Your task to perform on an android device: Go to internet settings Image 0: 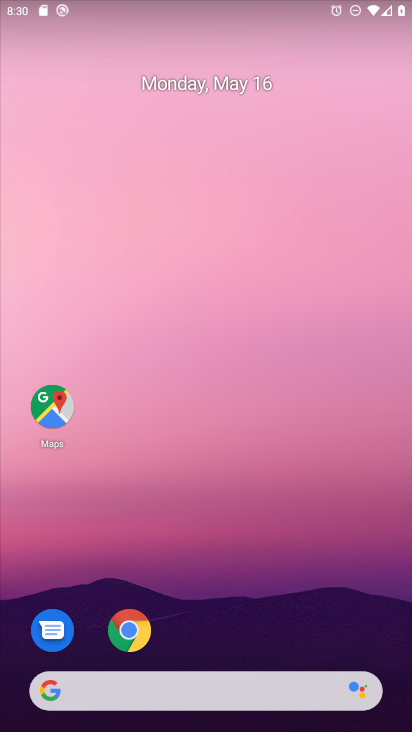
Step 0: drag from (305, 406) to (286, 45)
Your task to perform on an android device: Go to internet settings Image 1: 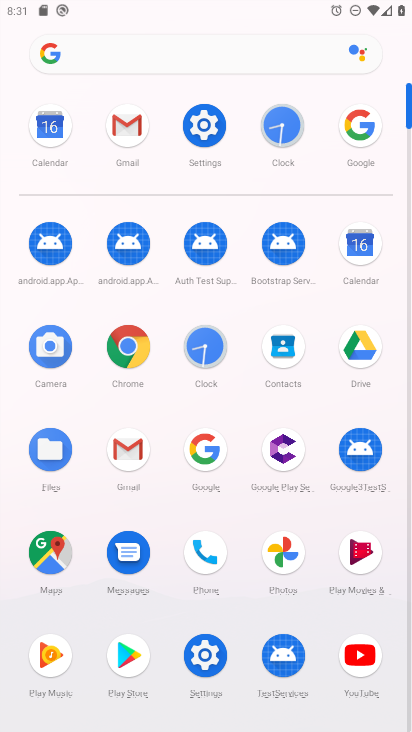
Step 1: click (201, 118)
Your task to perform on an android device: Go to internet settings Image 2: 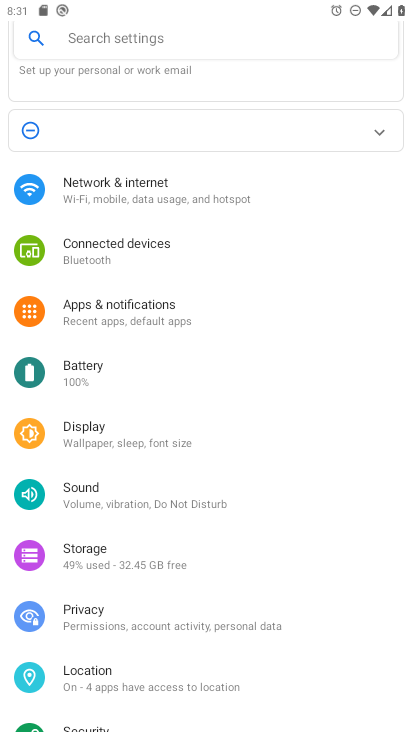
Step 2: click (95, 192)
Your task to perform on an android device: Go to internet settings Image 3: 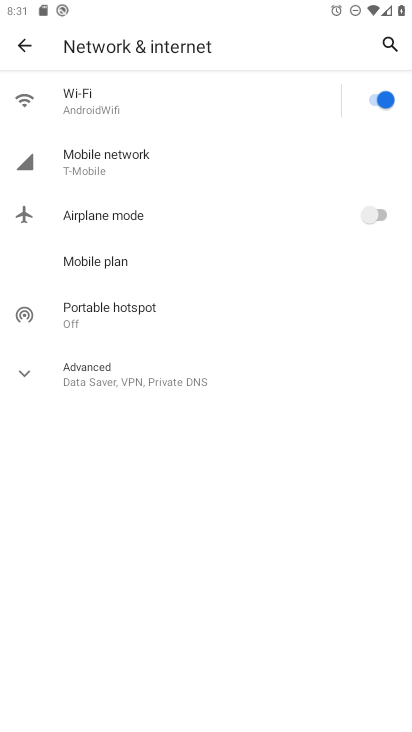
Step 3: task complete